Your task to perform on an android device: Toggle the flashlight Image 0: 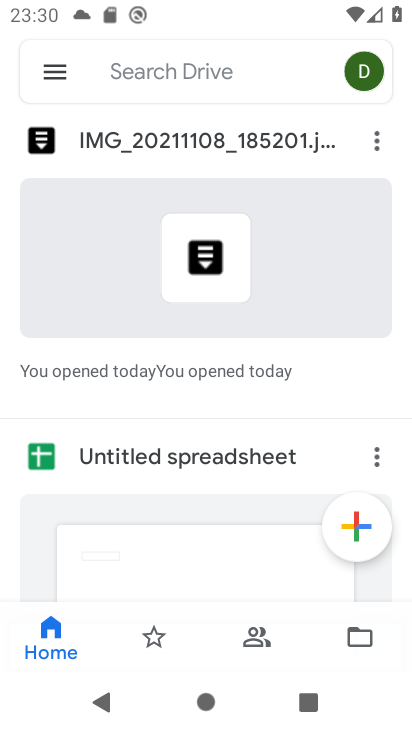
Step 0: press home button
Your task to perform on an android device: Toggle the flashlight Image 1: 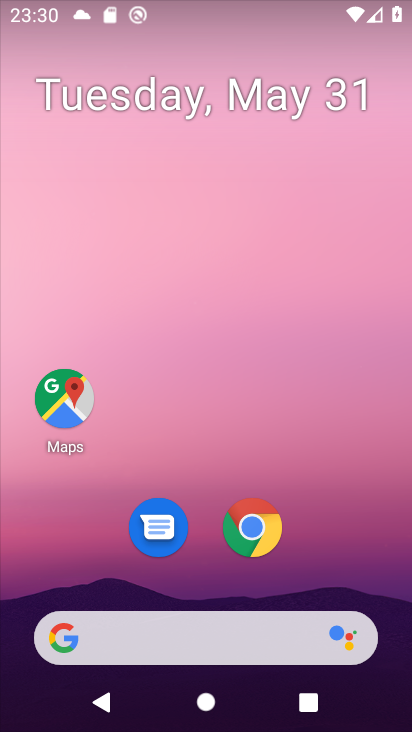
Step 1: task complete